Your task to perform on an android device: change the upload size in google photos Image 0: 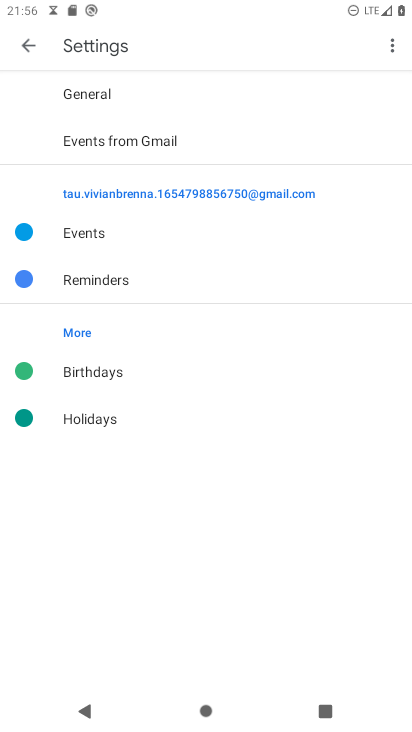
Step 0: press home button
Your task to perform on an android device: change the upload size in google photos Image 1: 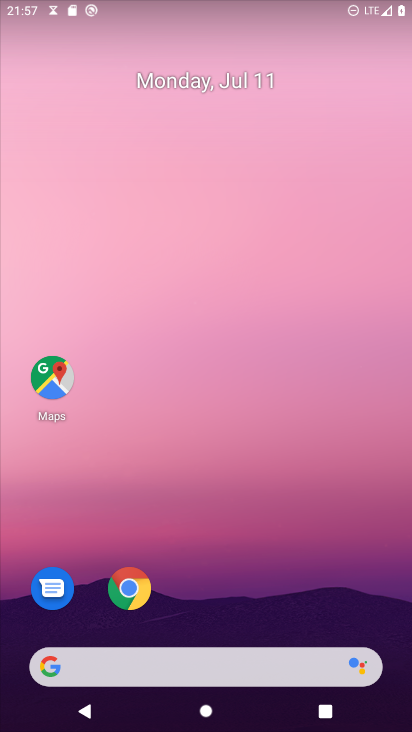
Step 1: drag from (198, 619) to (154, 189)
Your task to perform on an android device: change the upload size in google photos Image 2: 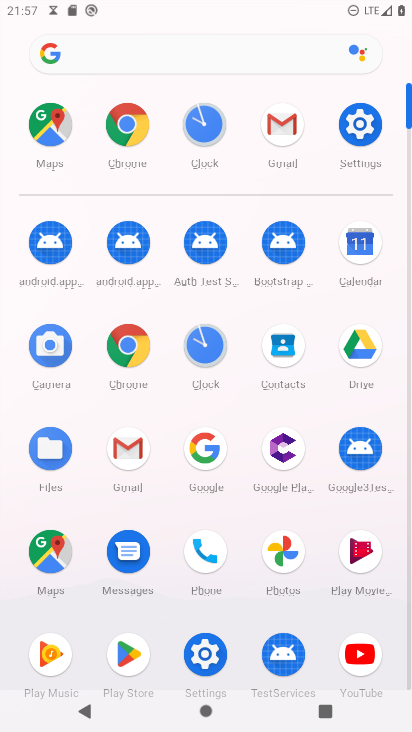
Step 2: click (282, 538)
Your task to perform on an android device: change the upload size in google photos Image 3: 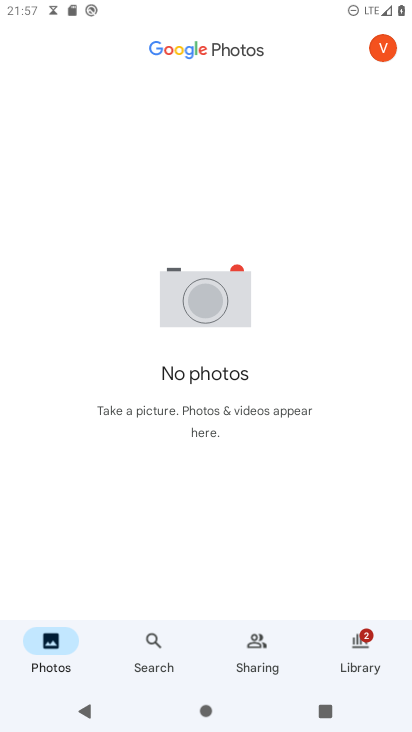
Step 3: click (387, 54)
Your task to perform on an android device: change the upload size in google photos Image 4: 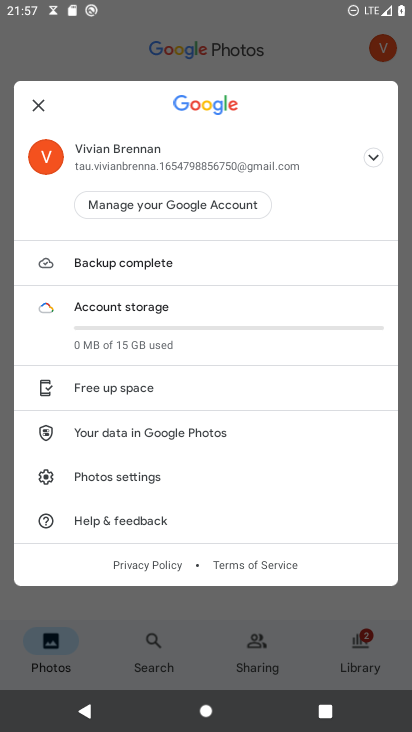
Step 4: click (82, 477)
Your task to perform on an android device: change the upload size in google photos Image 5: 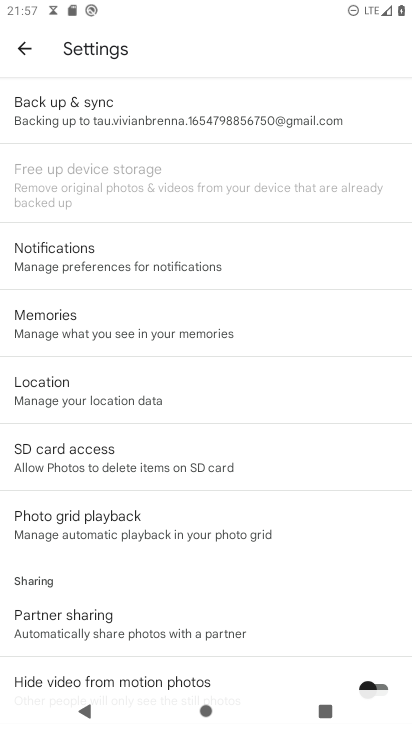
Step 5: click (32, 116)
Your task to perform on an android device: change the upload size in google photos Image 6: 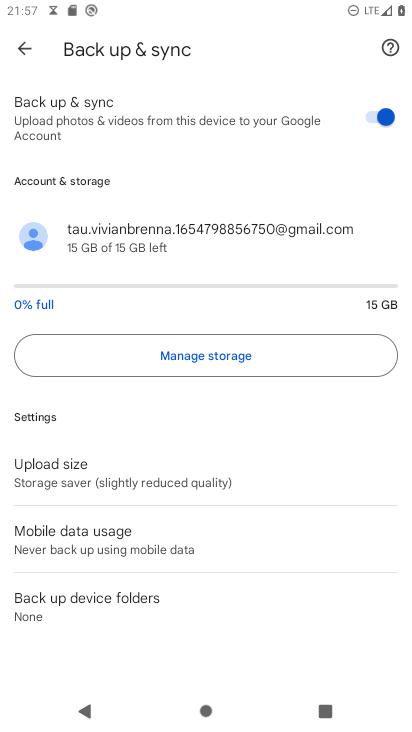
Step 6: click (74, 455)
Your task to perform on an android device: change the upload size in google photos Image 7: 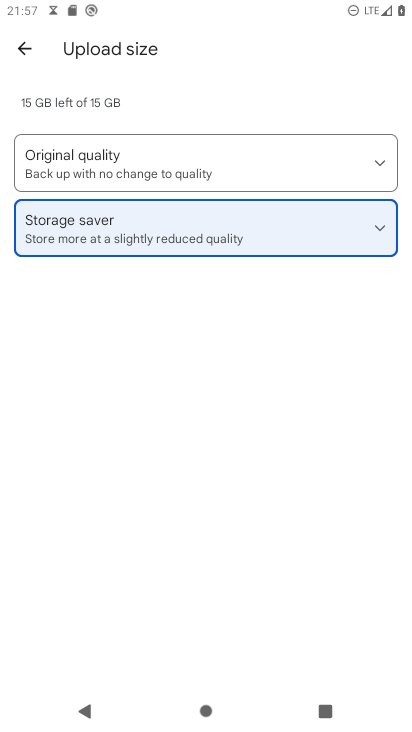
Step 7: click (29, 160)
Your task to perform on an android device: change the upload size in google photos Image 8: 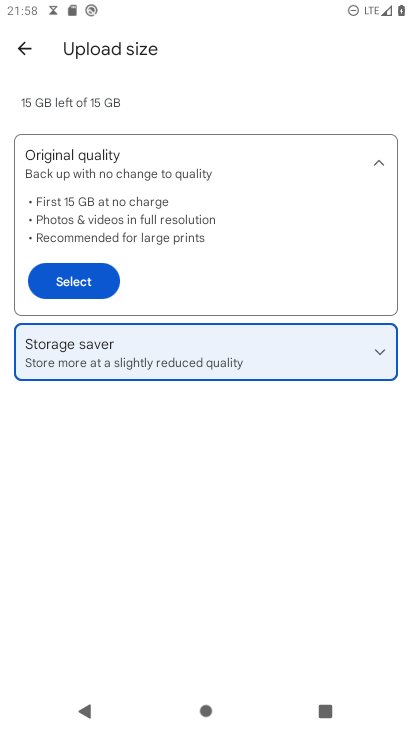
Step 8: task complete